Your task to perform on an android device: check battery use Image 0: 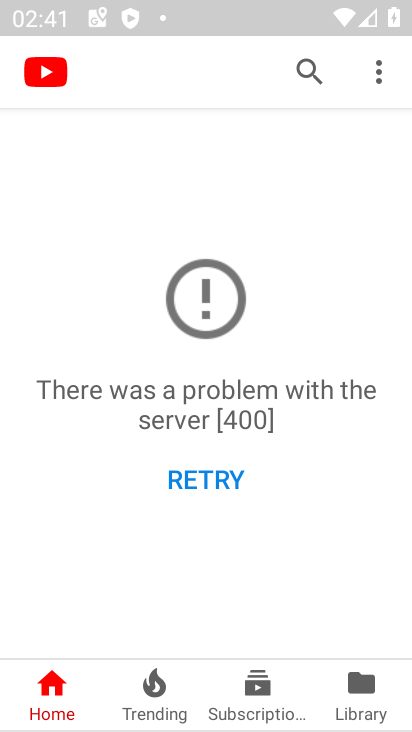
Step 0: press home button
Your task to perform on an android device: check battery use Image 1: 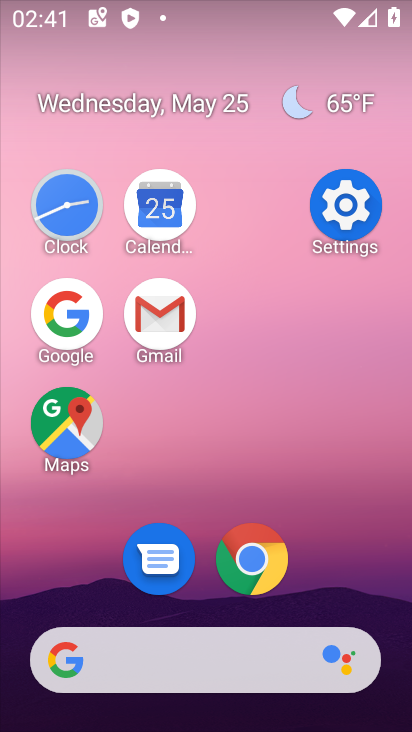
Step 1: click (351, 230)
Your task to perform on an android device: check battery use Image 2: 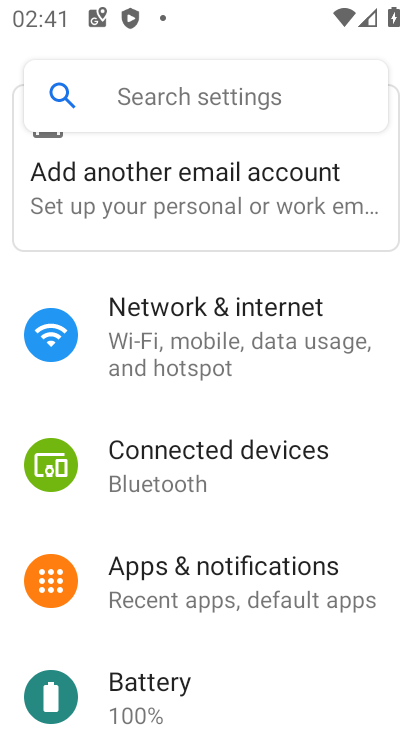
Step 2: drag from (320, 624) to (358, 205)
Your task to perform on an android device: check battery use Image 3: 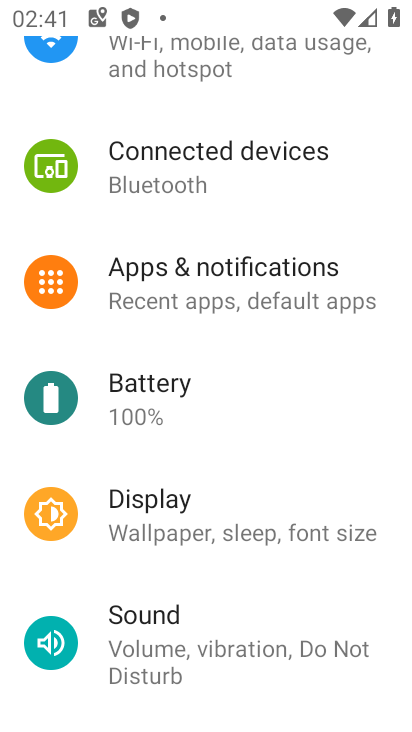
Step 3: click (157, 399)
Your task to perform on an android device: check battery use Image 4: 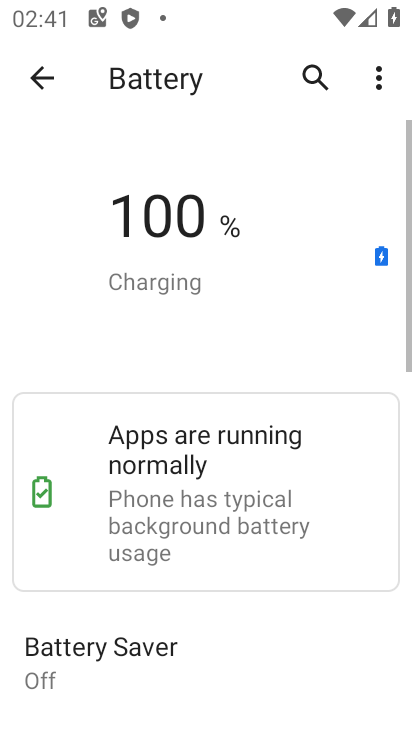
Step 4: click (385, 66)
Your task to perform on an android device: check battery use Image 5: 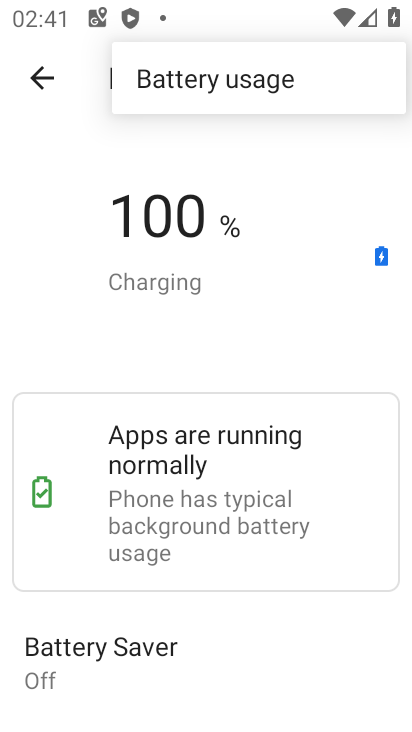
Step 5: click (288, 95)
Your task to perform on an android device: check battery use Image 6: 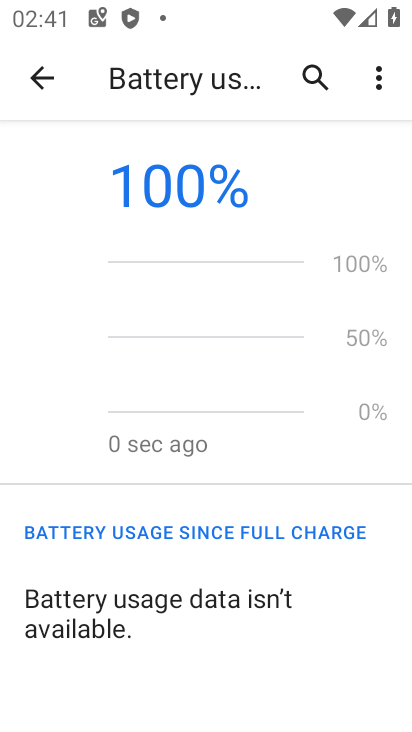
Step 6: task complete